Your task to perform on an android device: Go to sound settings Image 0: 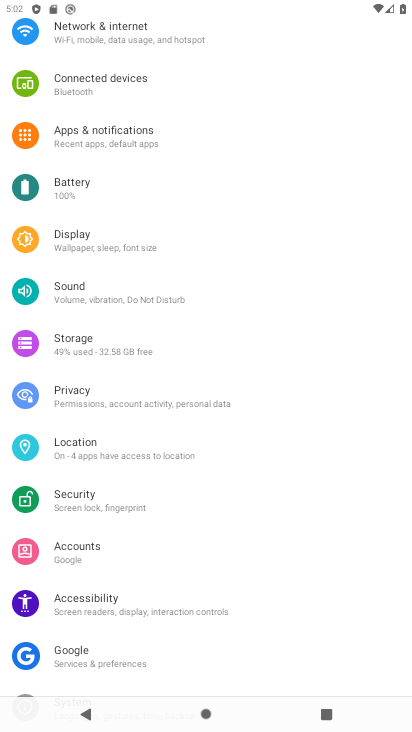
Step 0: click (145, 307)
Your task to perform on an android device: Go to sound settings Image 1: 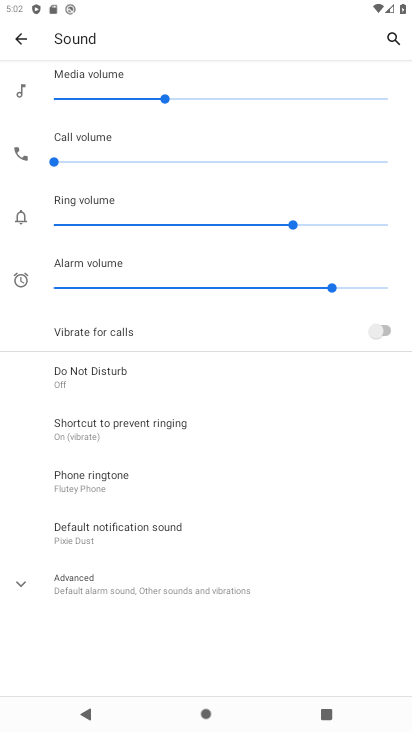
Step 1: task complete